Your task to perform on an android device: Open ESPN.com Image 0: 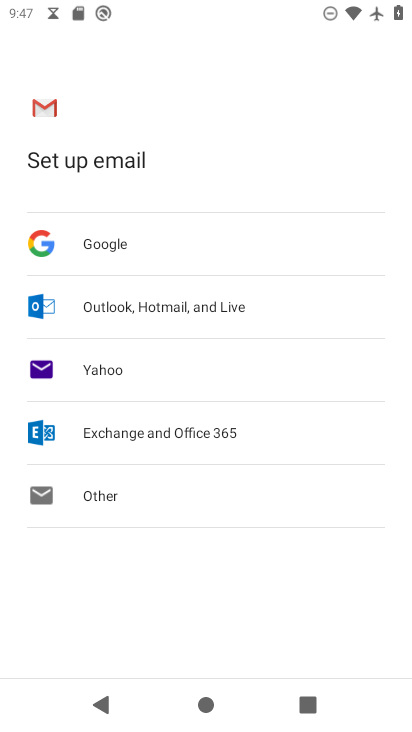
Step 0: press home button
Your task to perform on an android device: Open ESPN.com Image 1: 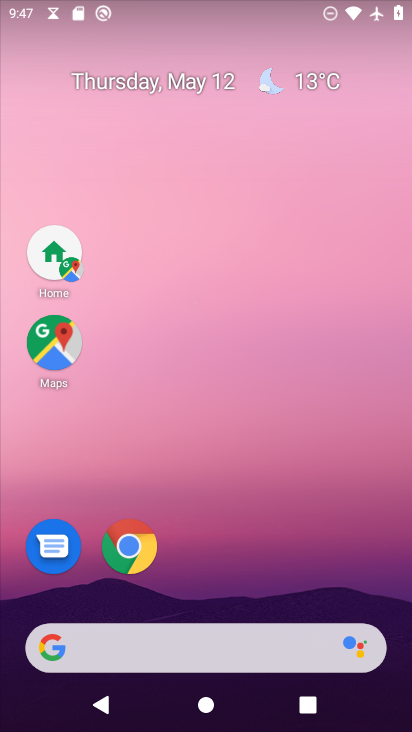
Step 1: click (141, 556)
Your task to perform on an android device: Open ESPN.com Image 2: 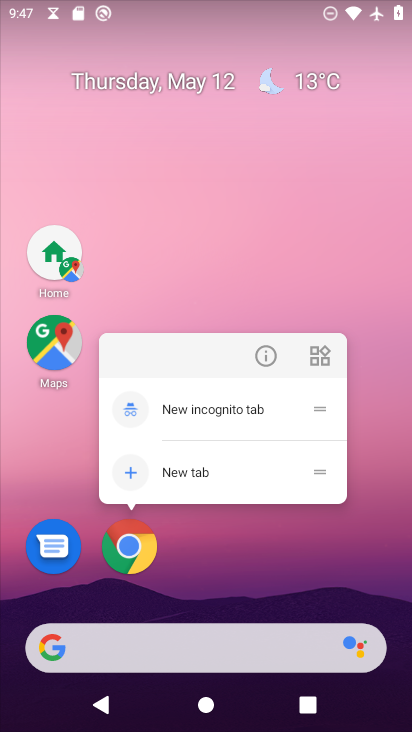
Step 2: click (125, 559)
Your task to perform on an android device: Open ESPN.com Image 3: 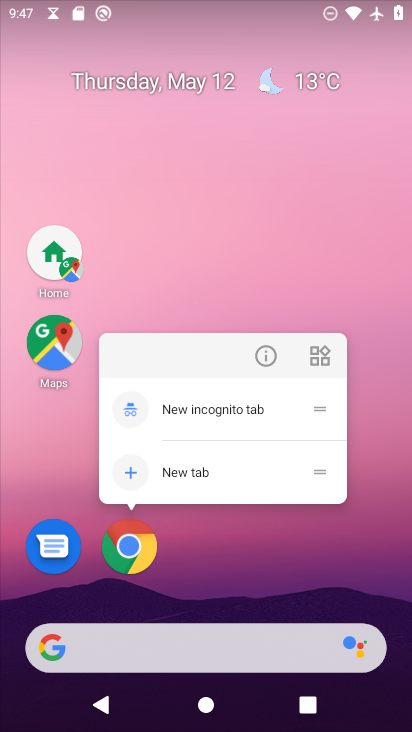
Step 3: click (127, 550)
Your task to perform on an android device: Open ESPN.com Image 4: 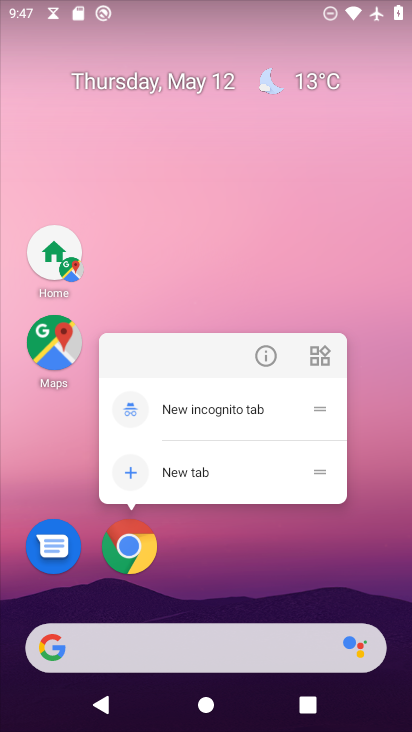
Step 4: click (131, 551)
Your task to perform on an android device: Open ESPN.com Image 5: 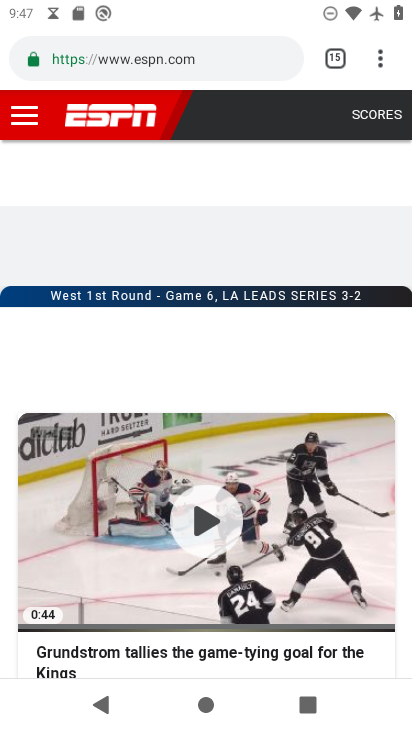
Step 5: task complete